Your task to perform on an android device: add a contact in the contacts app Image 0: 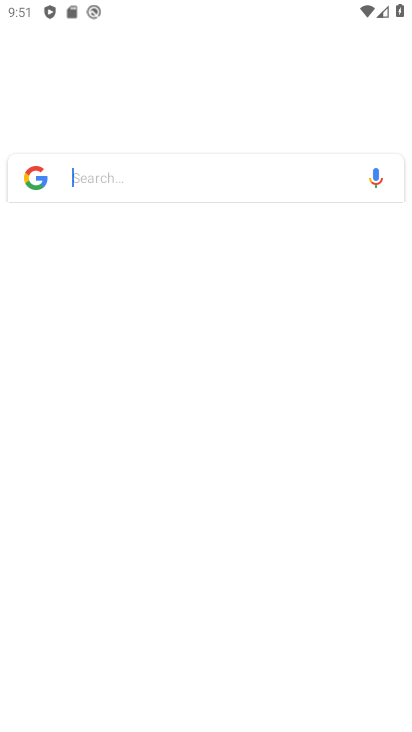
Step 0: press home button
Your task to perform on an android device: add a contact in the contacts app Image 1: 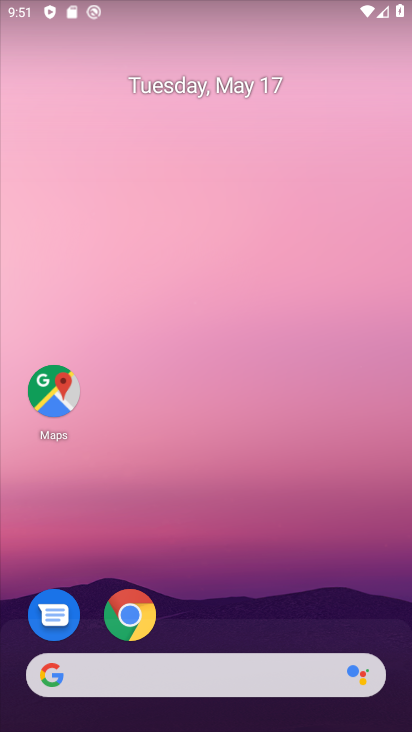
Step 1: drag from (242, 662) to (366, 126)
Your task to perform on an android device: add a contact in the contacts app Image 2: 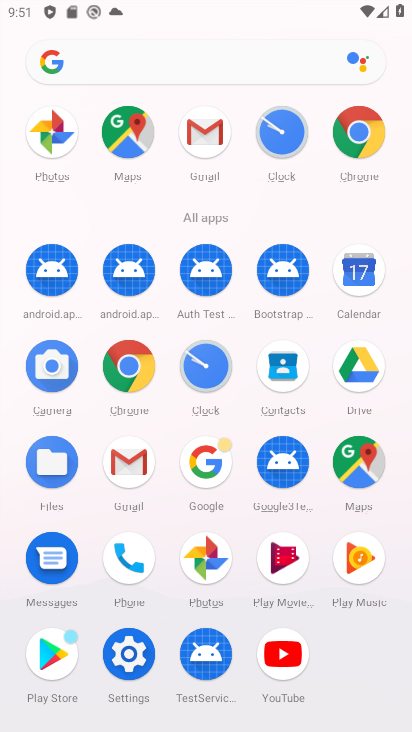
Step 2: click (285, 366)
Your task to perform on an android device: add a contact in the contacts app Image 3: 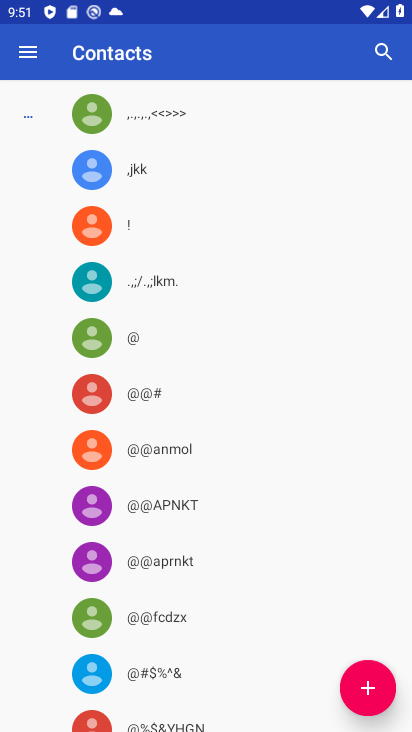
Step 3: click (357, 691)
Your task to perform on an android device: add a contact in the contacts app Image 4: 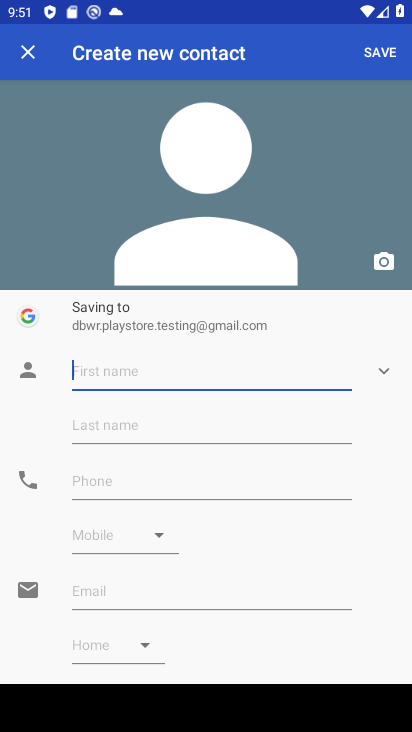
Step 4: click (77, 372)
Your task to perform on an android device: add a contact in the contacts app Image 5: 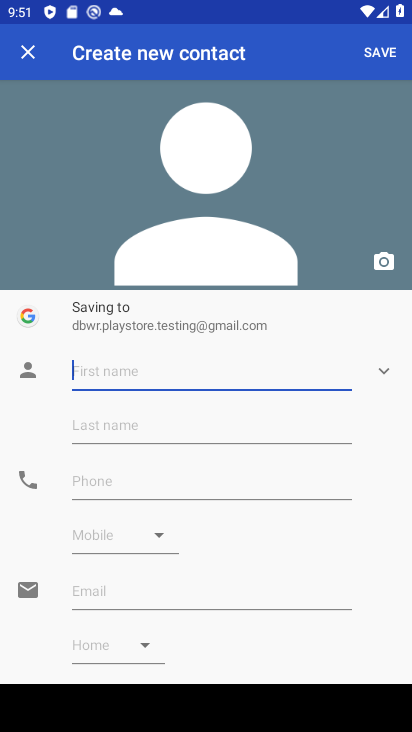
Step 5: type "btyfgg"
Your task to perform on an android device: add a contact in the contacts app Image 6: 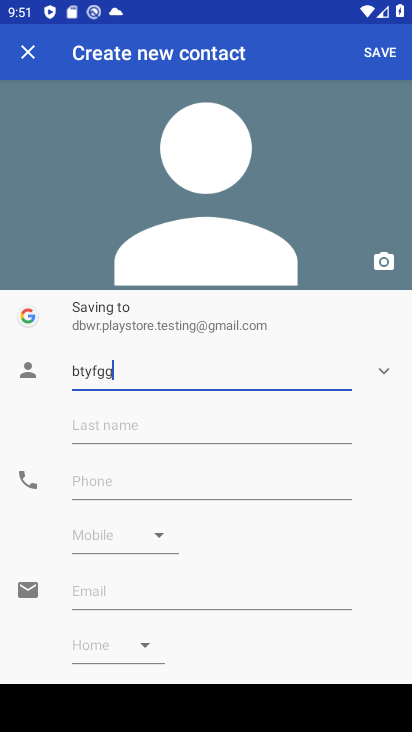
Step 6: click (111, 473)
Your task to perform on an android device: add a contact in the contacts app Image 7: 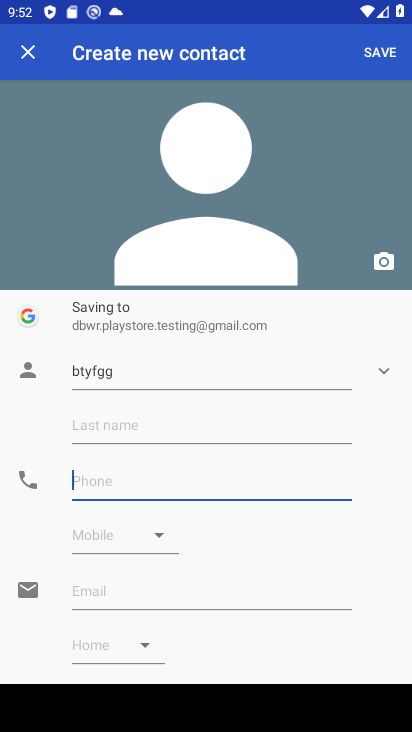
Step 7: type "33467765"
Your task to perform on an android device: add a contact in the contacts app Image 8: 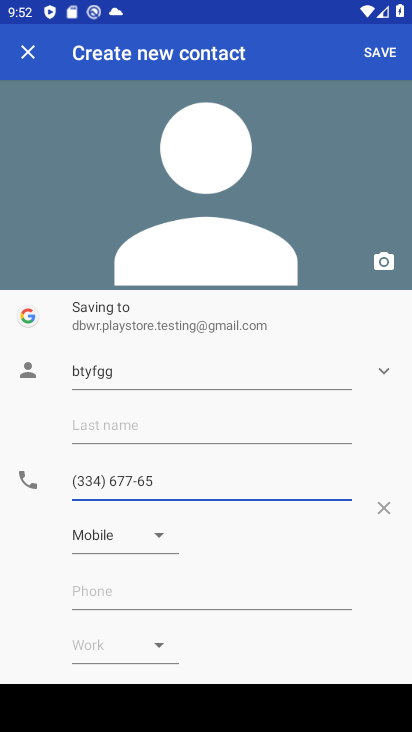
Step 8: click (380, 54)
Your task to perform on an android device: add a contact in the contacts app Image 9: 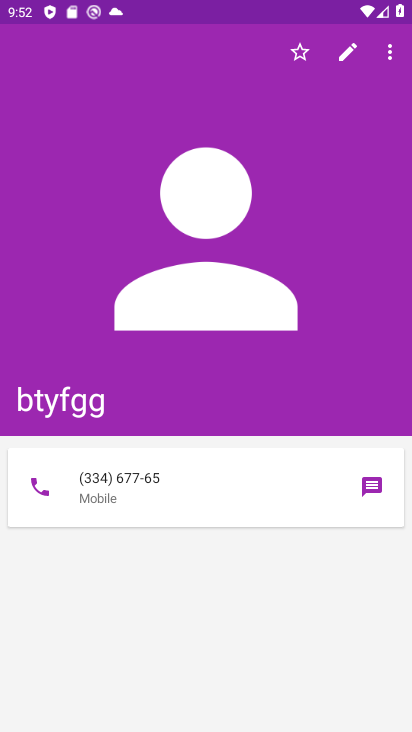
Step 9: task complete